Your task to perform on an android device: turn on javascript in the chrome app Image 0: 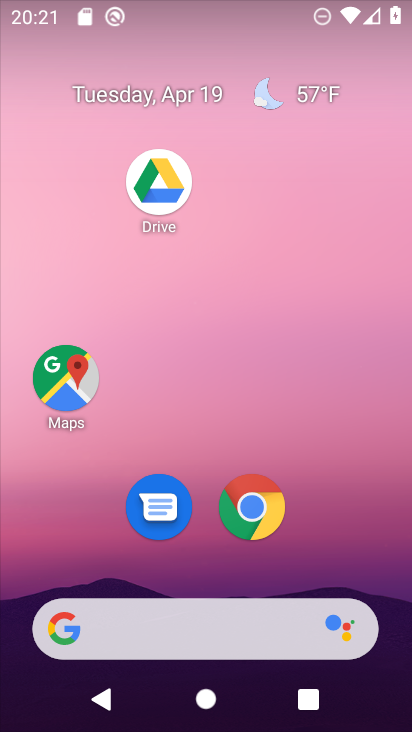
Step 0: click (263, 513)
Your task to perform on an android device: turn on javascript in the chrome app Image 1: 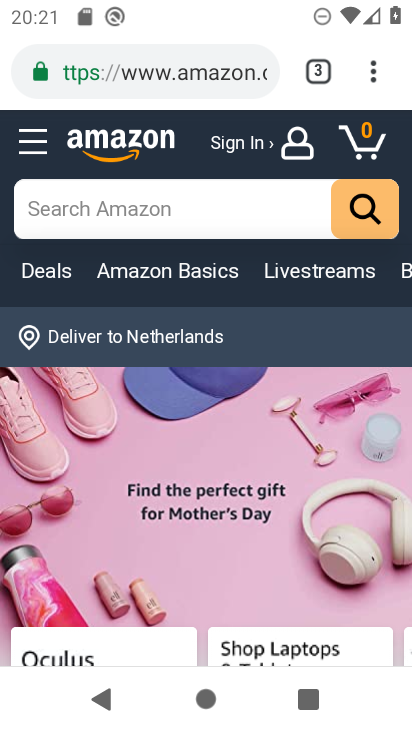
Step 1: drag from (374, 71) to (263, 493)
Your task to perform on an android device: turn on javascript in the chrome app Image 2: 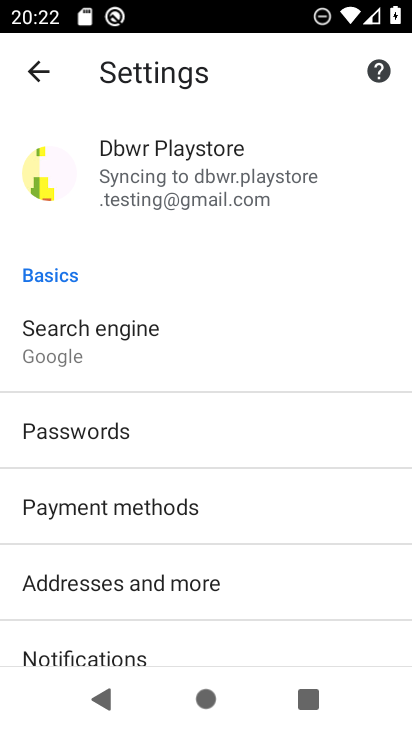
Step 2: drag from (310, 625) to (288, 176)
Your task to perform on an android device: turn on javascript in the chrome app Image 3: 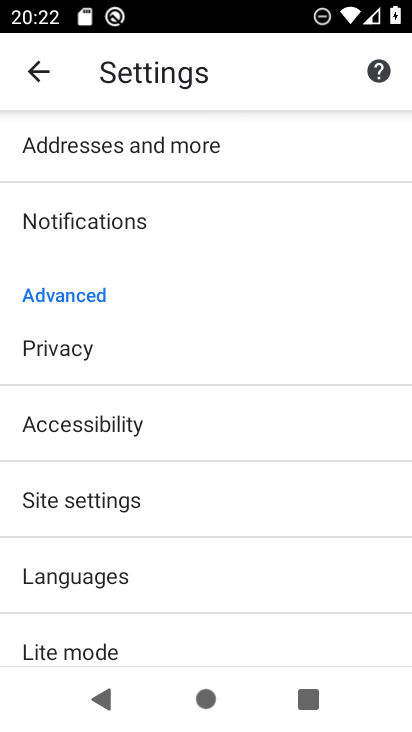
Step 3: click (193, 505)
Your task to perform on an android device: turn on javascript in the chrome app Image 4: 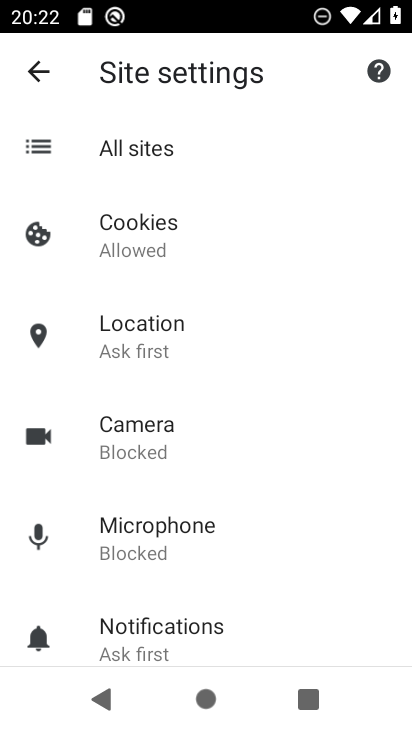
Step 4: drag from (270, 568) to (235, 205)
Your task to perform on an android device: turn on javascript in the chrome app Image 5: 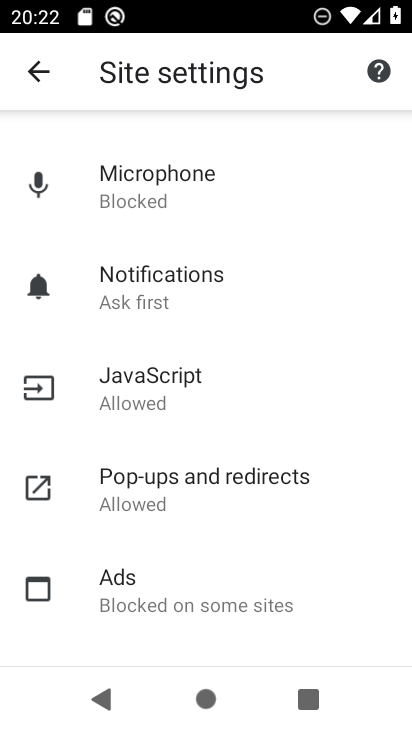
Step 5: click (216, 381)
Your task to perform on an android device: turn on javascript in the chrome app Image 6: 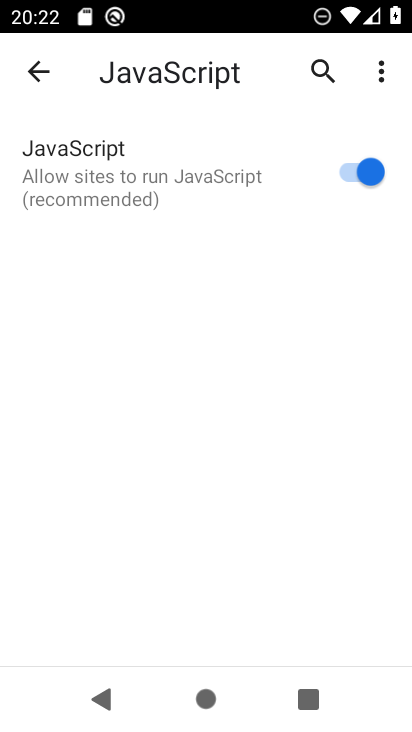
Step 6: task complete